Your task to perform on an android device: turn notification dots on Image 0: 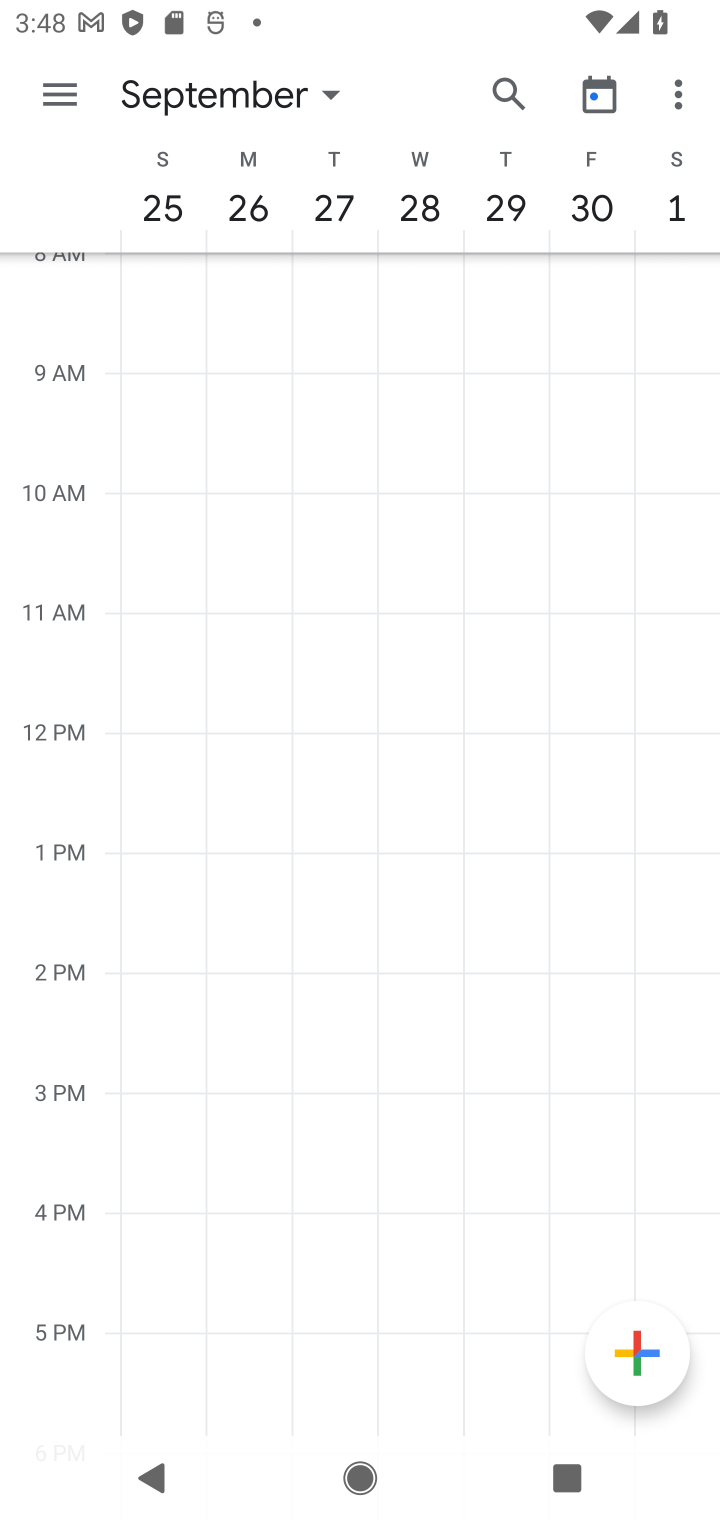
Step 0: press home button
Your task to perform on an android device: turn notification dots on Image 1: 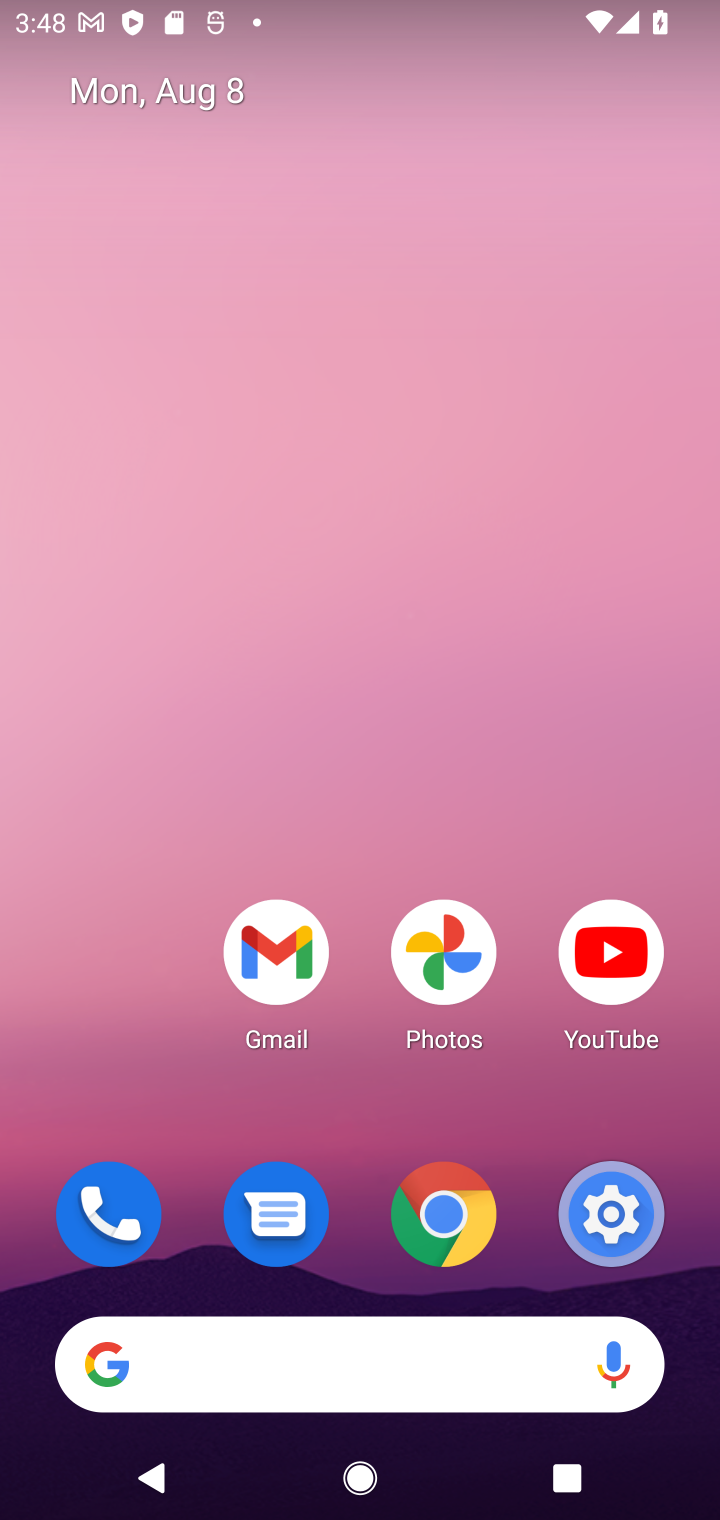
Step 1: drag from (359, 1203) to (369, 162)
Your task to perform on an android device: turn notification dots on Image 2: 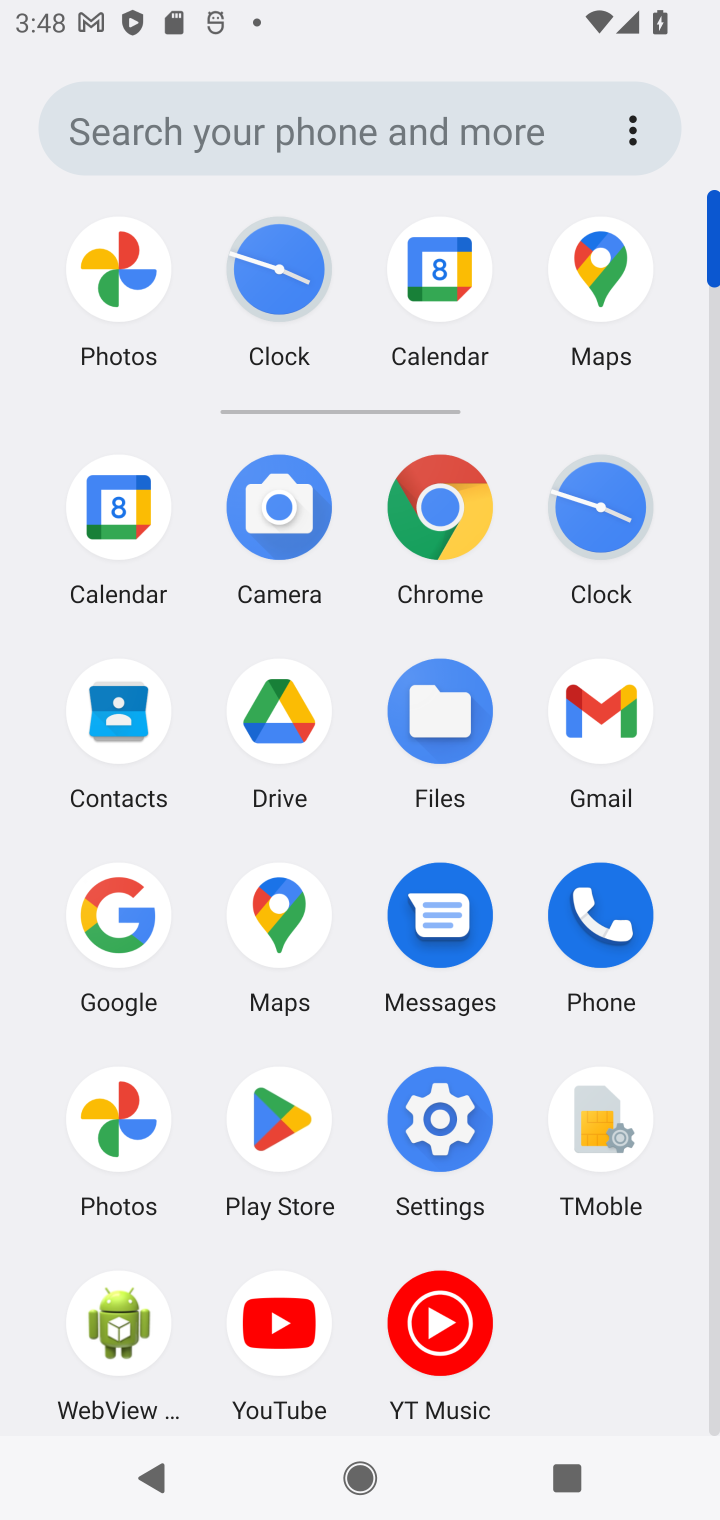
Step 2: click (449, 1132)
Your task to perform on an android device: turn notification dots on Image 3: 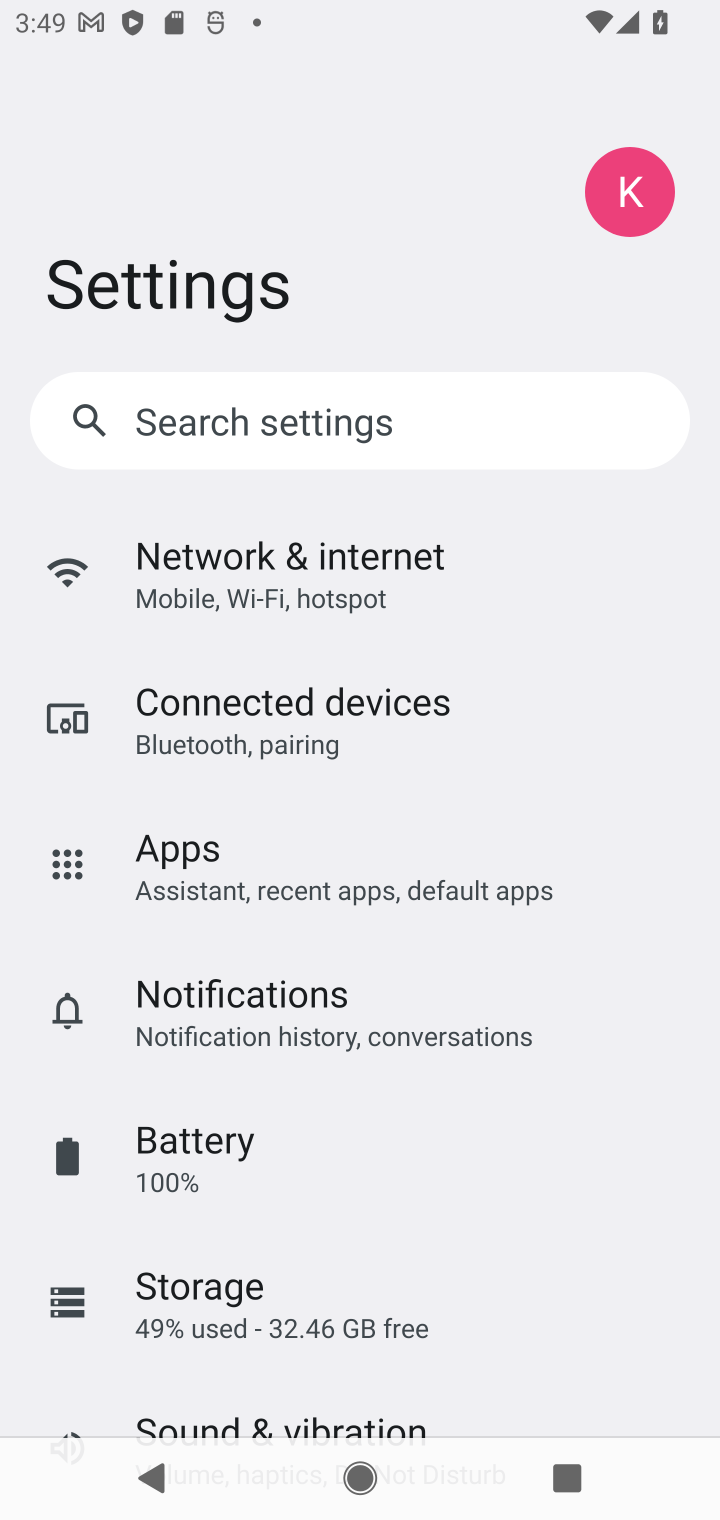
Step 3: click (235, 1022)
Your task to perform on an android device: turn notification dots on Image 4: 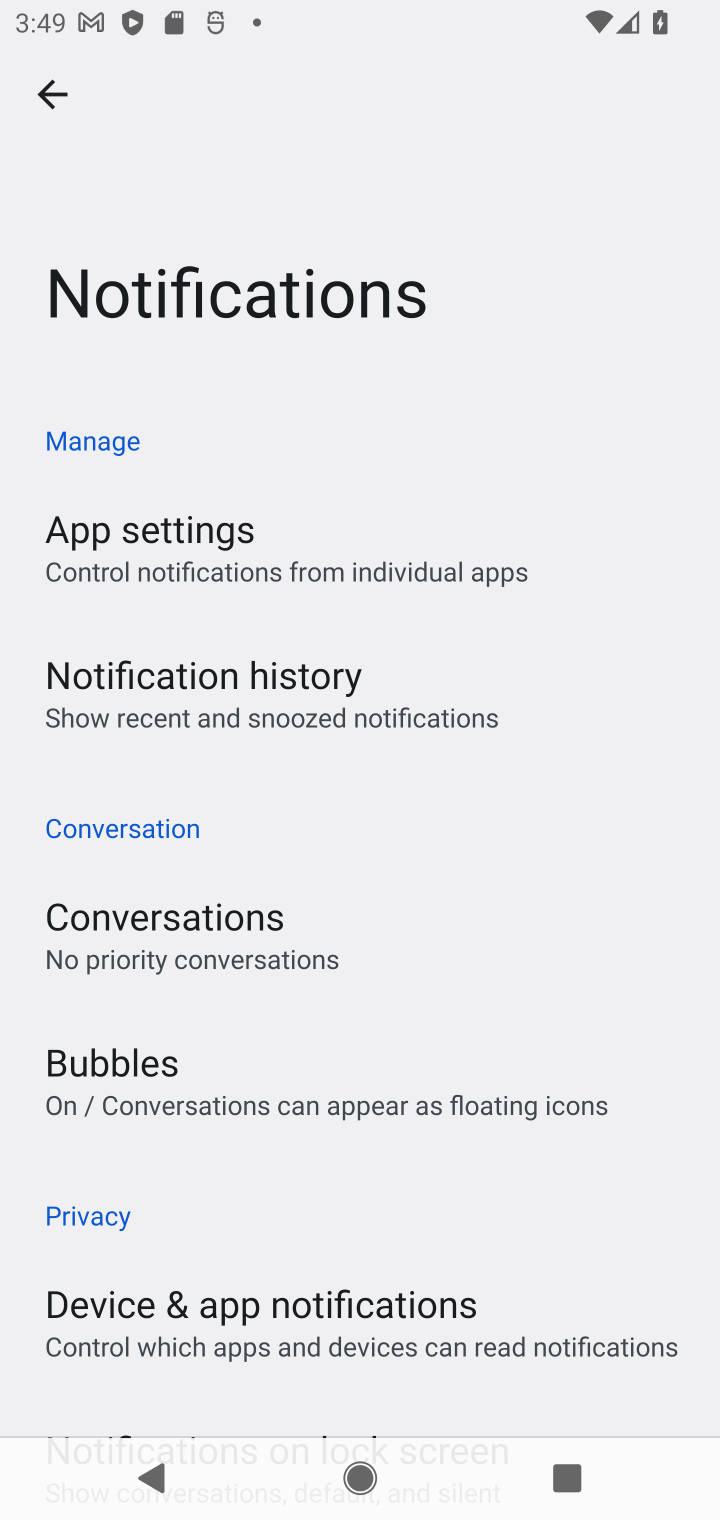
Step 4: drag from (226, 1042) to (229, 534)
Your task to perform on an android device: turn notification dots on Image 5: 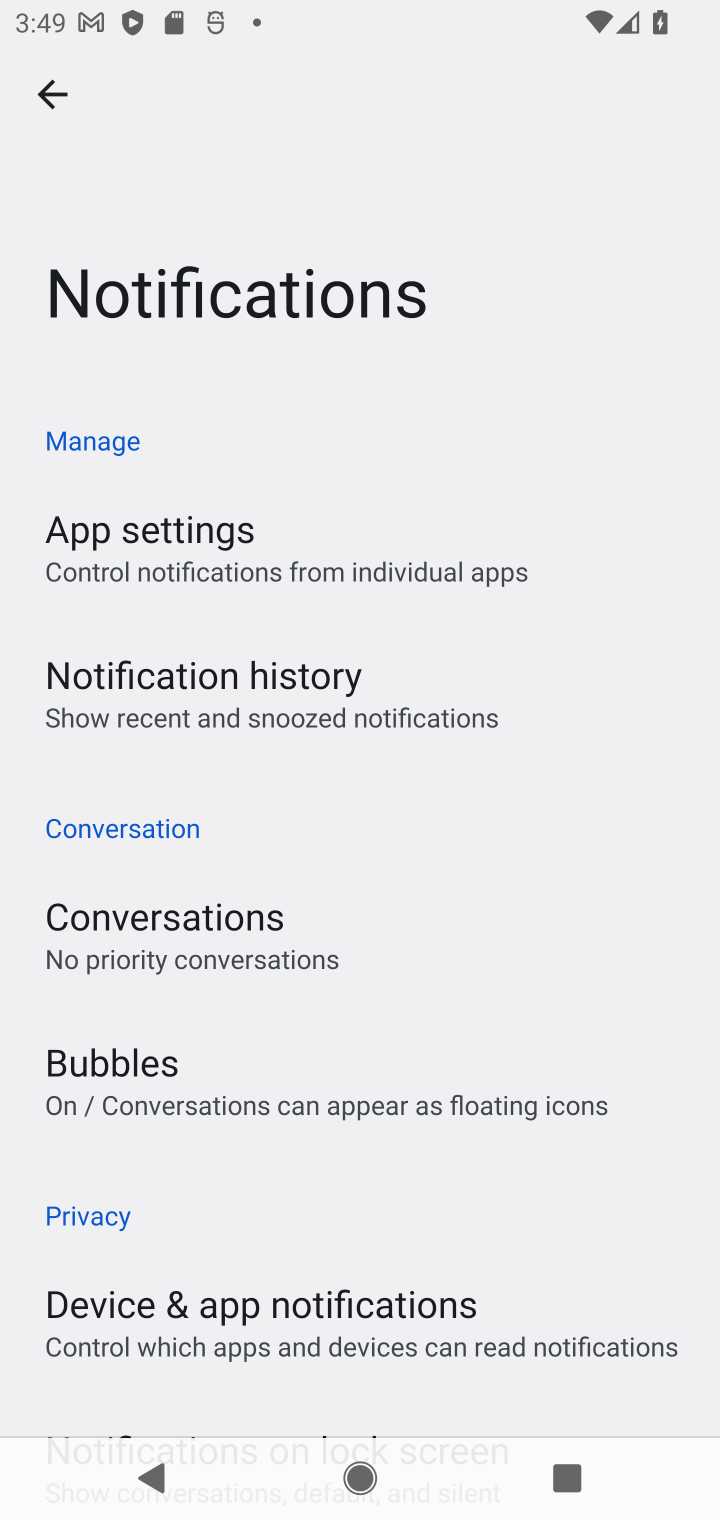
Step 5: drag from (313, 1280) to (283, 684)
Your task to perform on an android device: turn notification dots on Image 6: 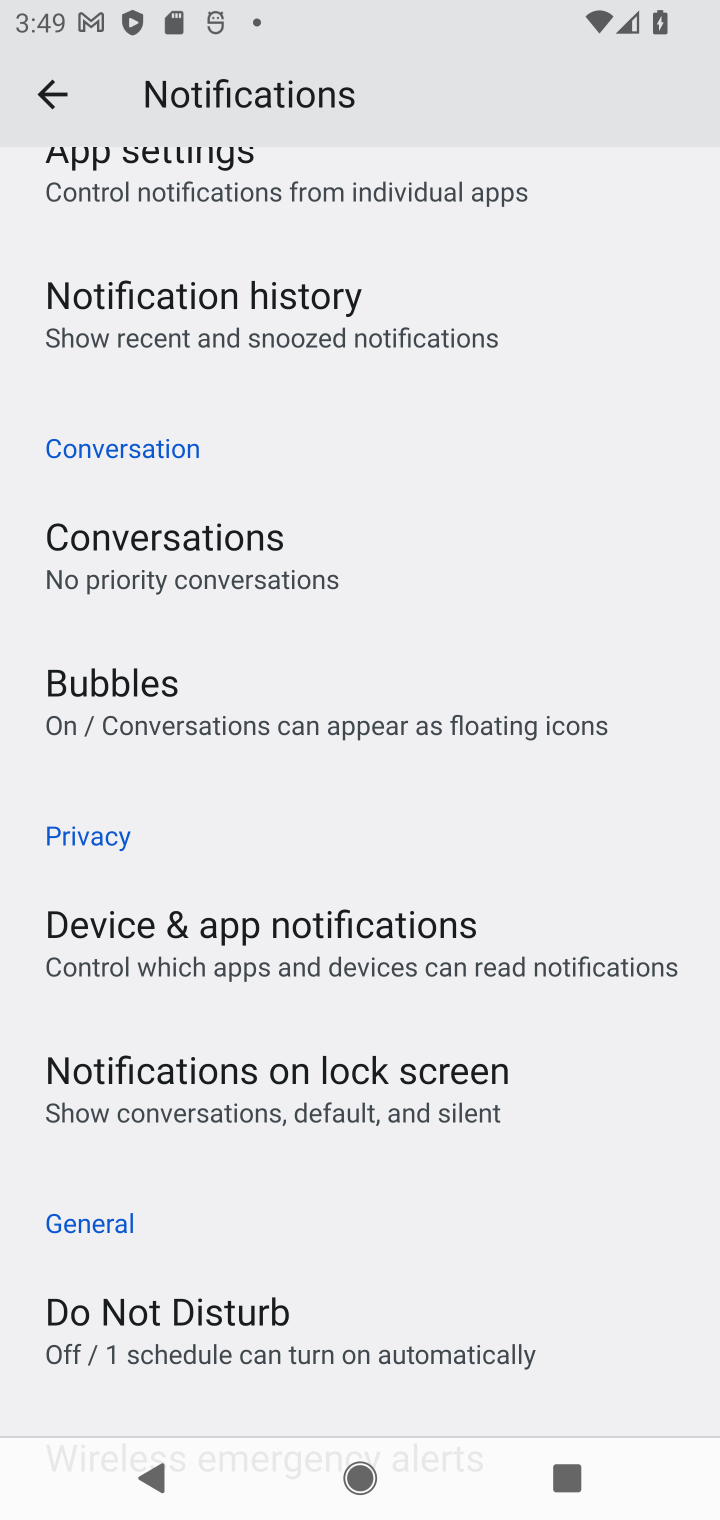
Step 6: drag from (358, 1309) to (305, 697)
Your task to perform on an android device: turn notification dots on Image 7: 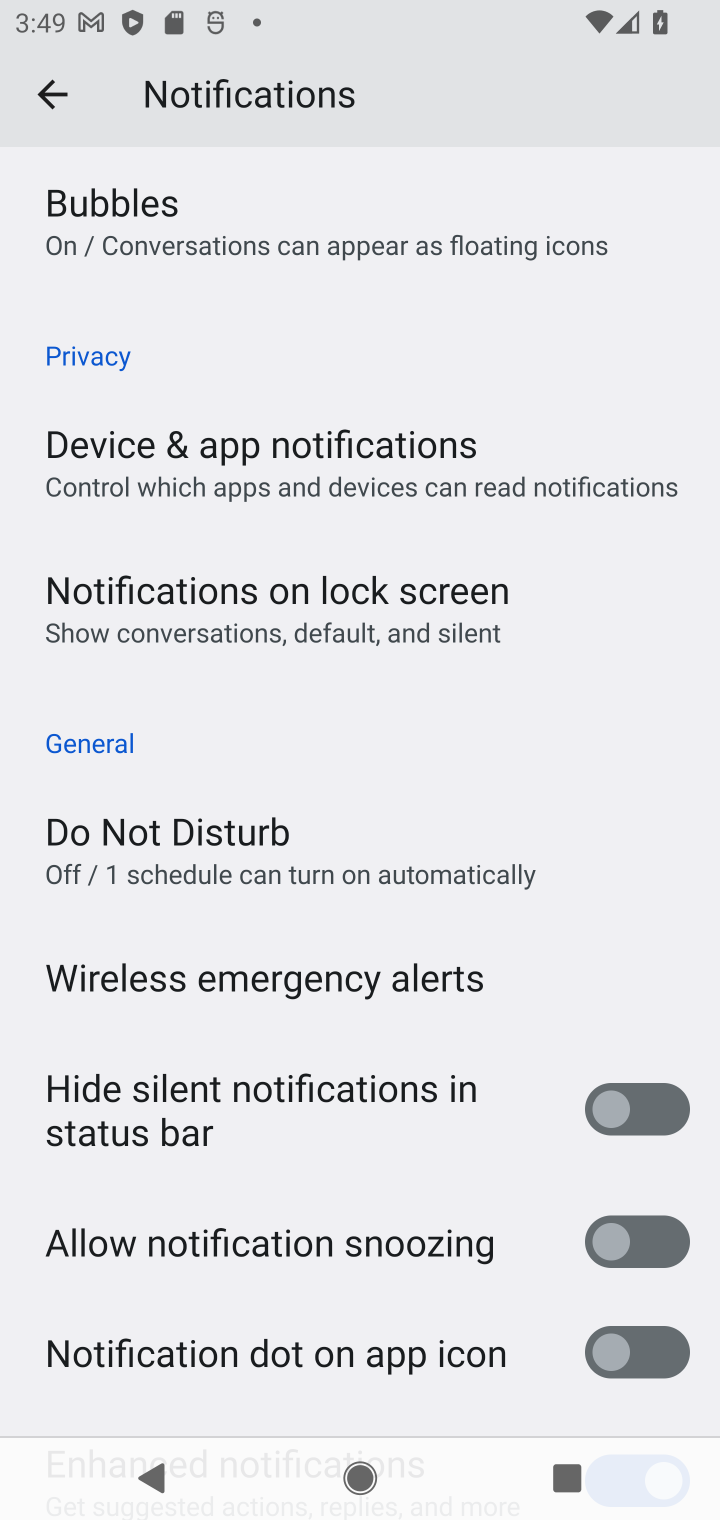
Step 7: drag from (380, 1317) to (353, 955)
Your task to perform on an android device: turn notification dots on Image 8: 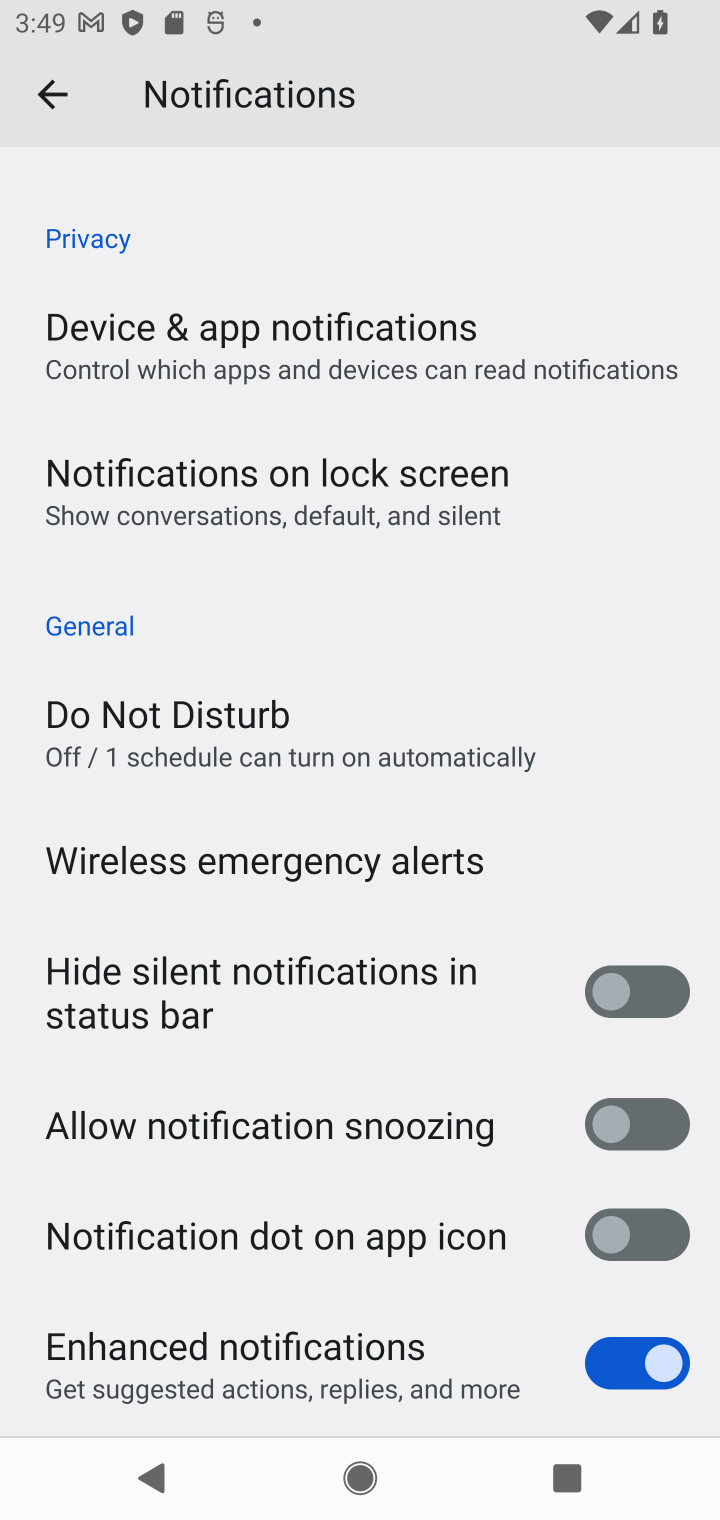
Step 8: click (652, 1239)
Your task to perform on an android device: turn notification dots on Image 9: 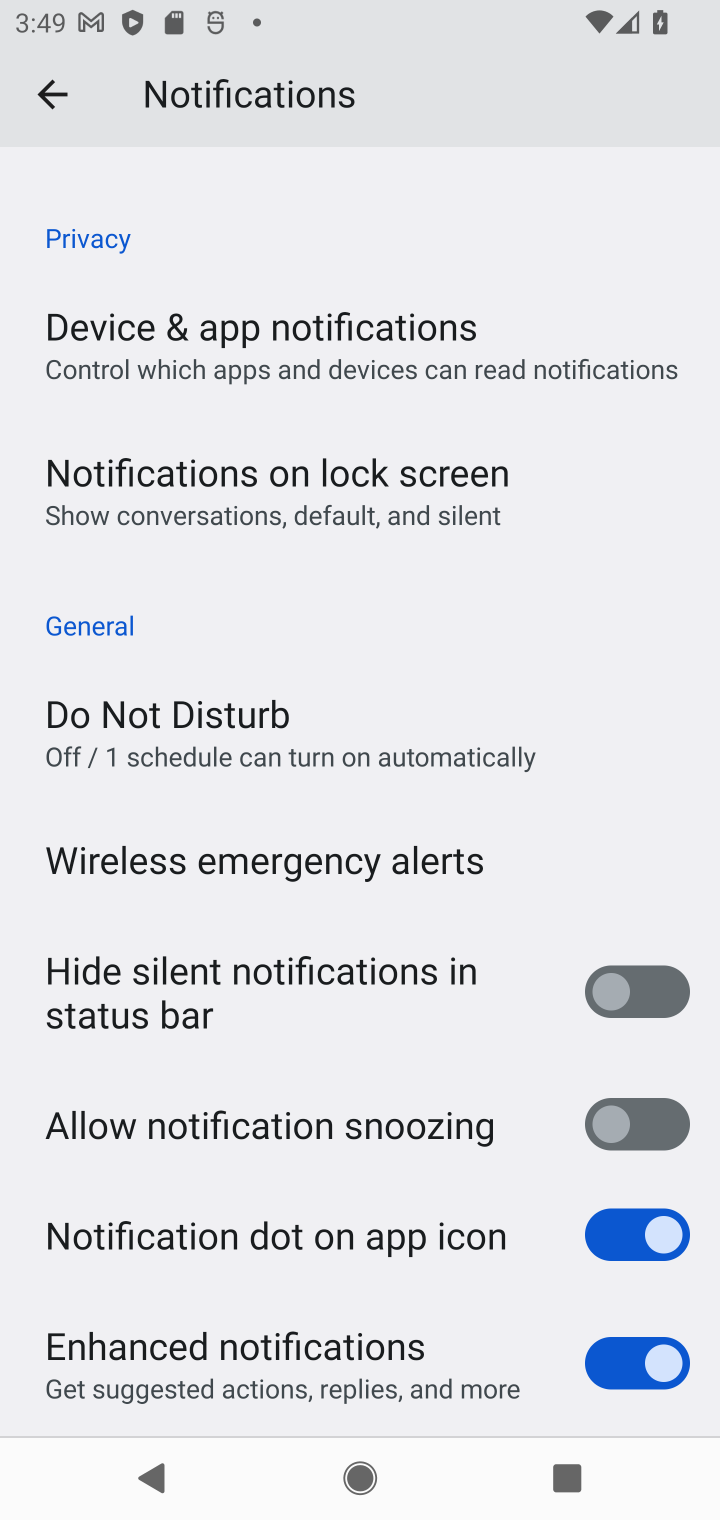
Step 9: task complete